Your task to perform on an android device: Open the web browser Image 0: 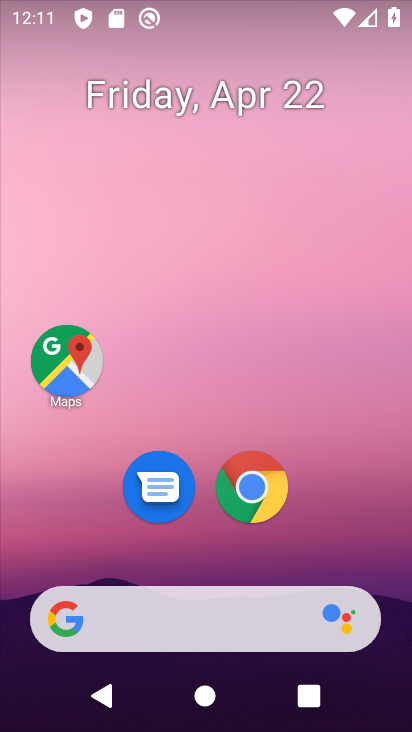
Step 0: click (200, 621)
Your task to perform on an android device: Open the web browser Image 1: 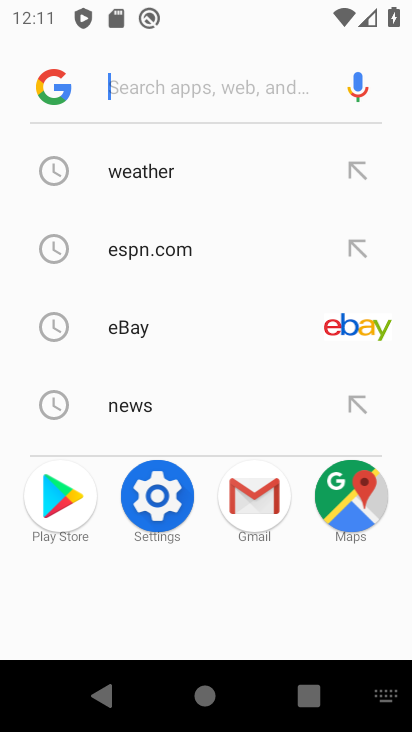
Step 1: task complete